Your task to perform on an android device: toggle data saver in the chrome app Image 0: 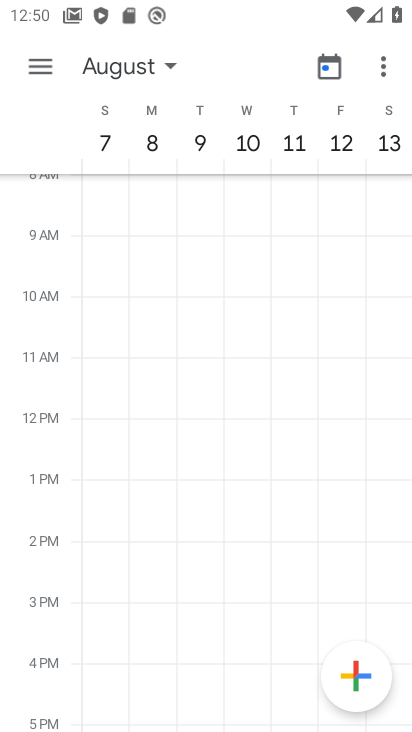
Step 0: press home button
Your task to perform on an android device: toggle data saver in the chrome app Image 1: 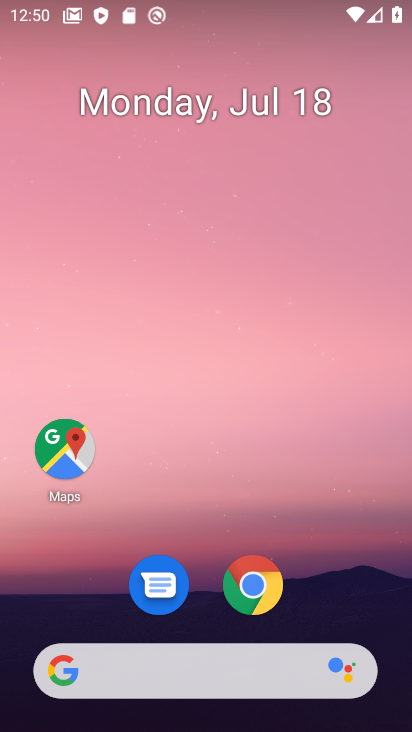
Step 1: click (264, 585)
Your task to perform on an android device: toggle data saver in the chrome app Image 2: 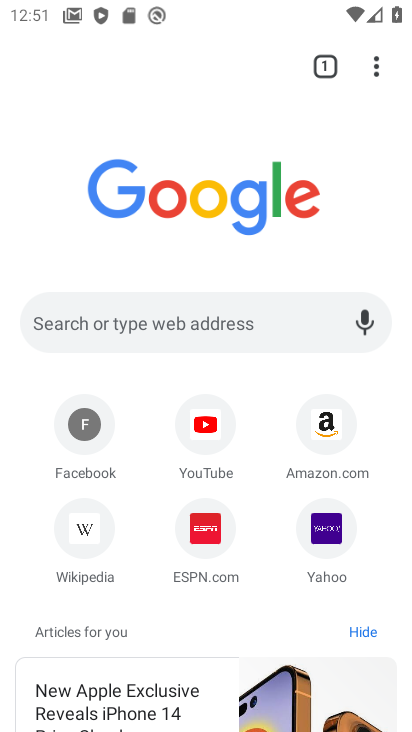
Step 2: drag from (370, 62) to (183, 542)
Your task to perform on an android device: toggle data saver in the chrome app Image 3: 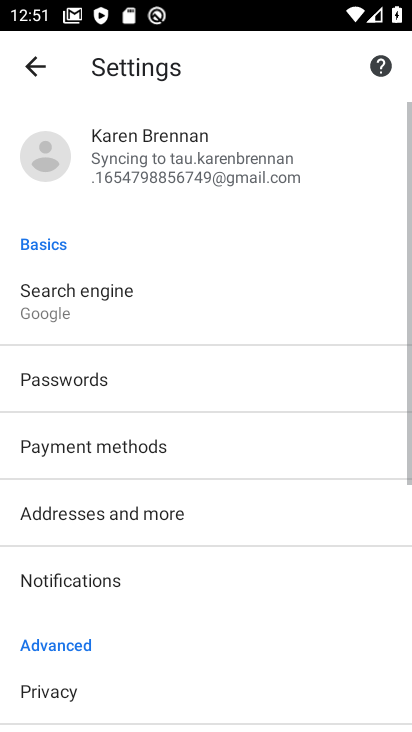
Step 3: drag from (149, 626) to (298, 241)
Your task to perform on an android device: toggle data saver in the chrome app Image 4: 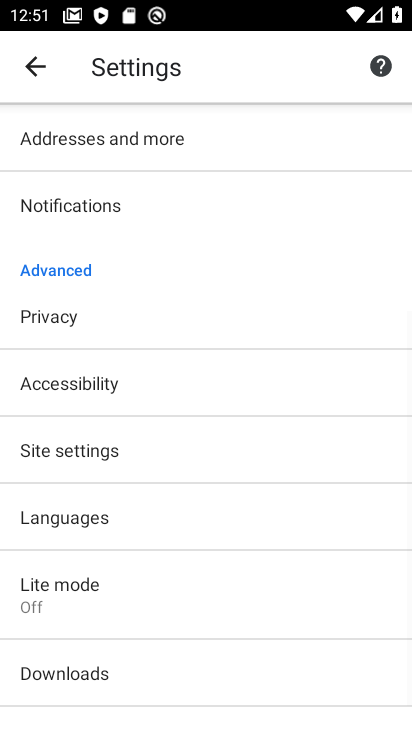
Step 4: click (94, 593)
Your task to perform on an android device: toggle data saver in the chrome app Image 5: 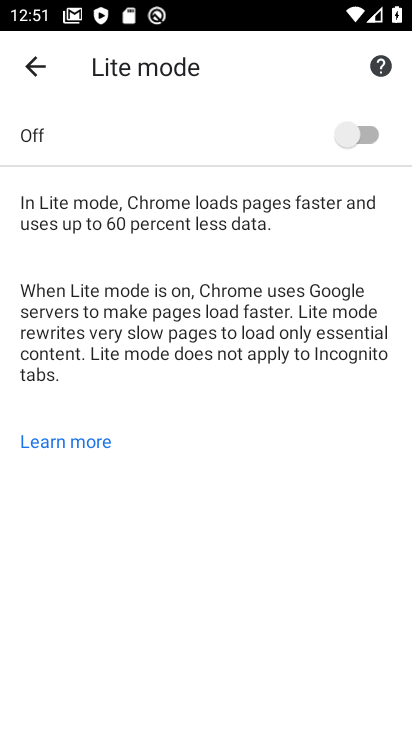
Step 5: click (371, 133)
Your task to perform on an android device: toggle data saver in the chrome app Image 6: 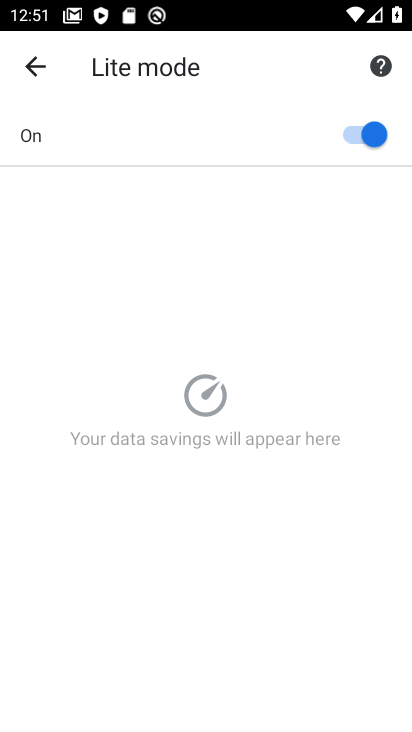
Step 6: task complete